Your task to perform on an android device: What's on my calendar tomorrow? Image 0: 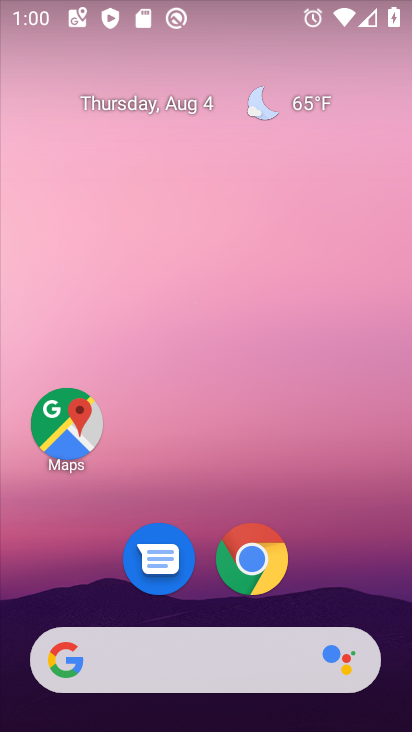
Step 0: drag from (182, 666) to (220, 170)
Your task to perform on an android device: What's on my calendar tomorrow? Image 1: 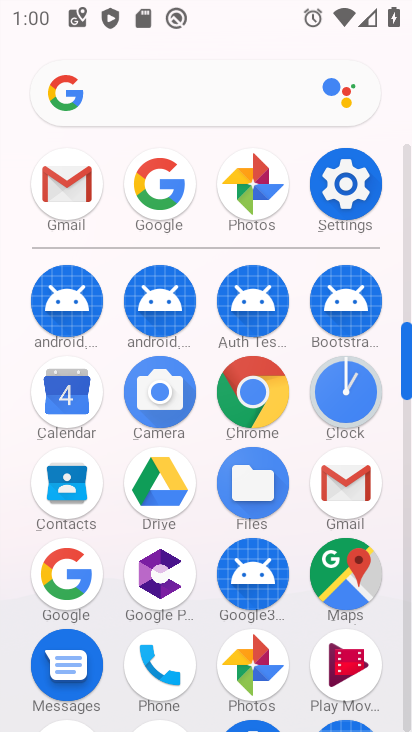
Step 1: click (67, 397)
Your task to perform on an android device: What's on my calendar tomorrow? Image 2: 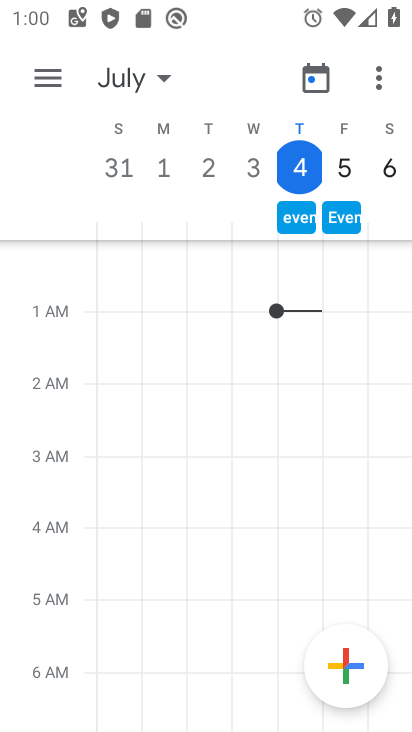
Step 2: click (322, 82)
Your task to perform on an android device: What's on my calendar tomorrow? Image 3: 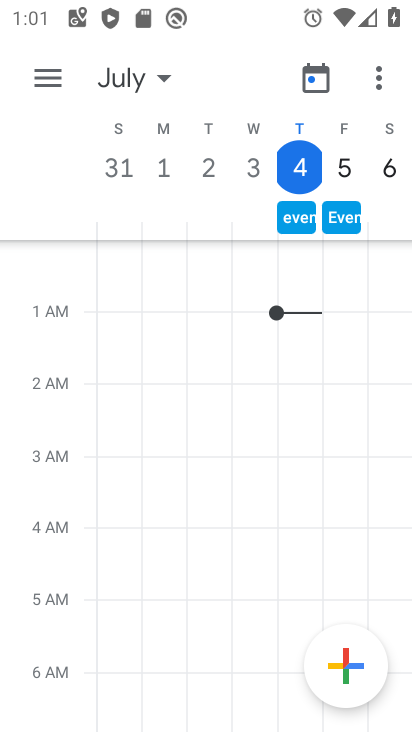
Step 3: click (161, 78)
Your task to perform on an android device: What's on my calendar tomorrow? Image 4: 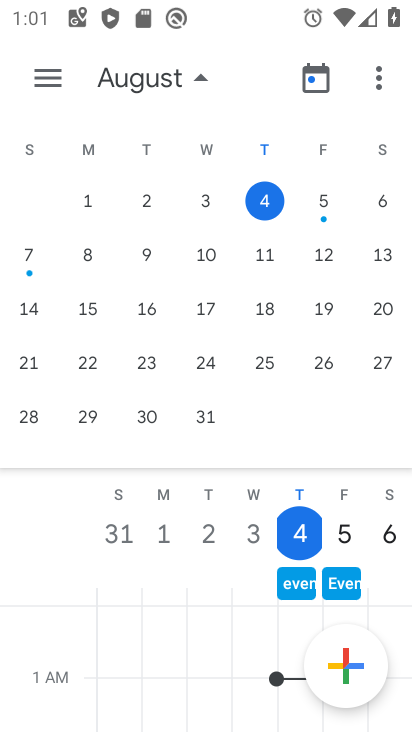
Step 4: click (321, 207)
Your task to perform on an android device: What's on my calendar tomorrow? Image 5: 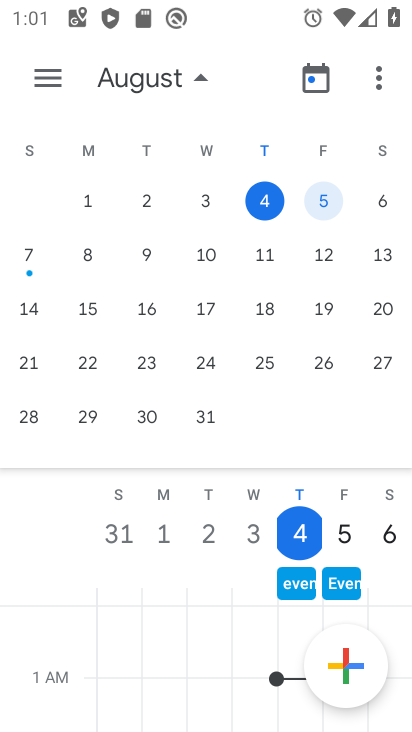
Step 5: click (46, 70)
Your task to perform on an android device: What's on my calendar tomorrow? Image 6: 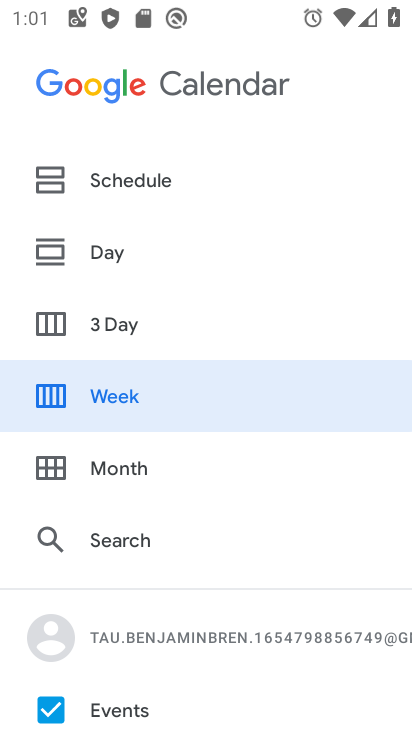
Step 6: click (103, 186)
Your task to perform on an android device: What's on my calendar tomorrow? Image 7: 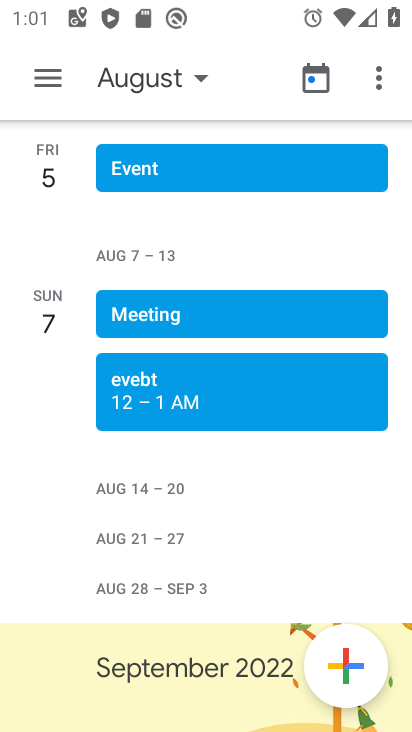
Step 7: task complete